Your task to perform on an android device: Go to Wikipedia Image 0: 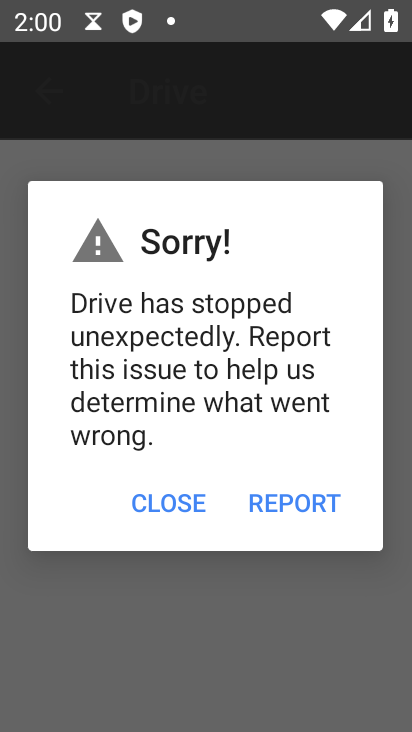
Step 0: press home button
Your task to perform on an android device: Go to Wikipedia Image 1: 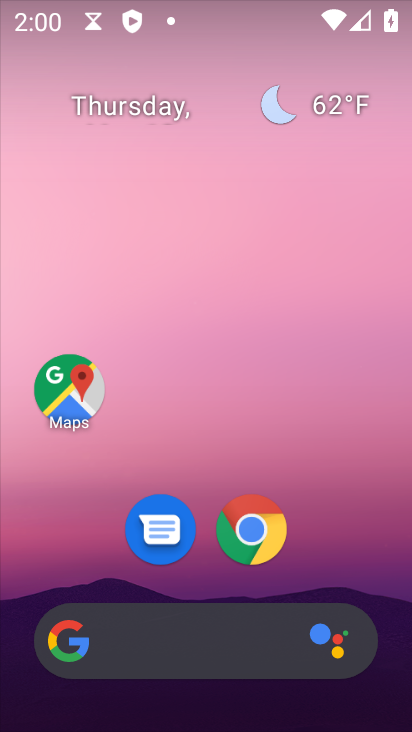
Step 1: click (250, 529)
Your task to perform on an android device: Go to Wikipedia Image 2: 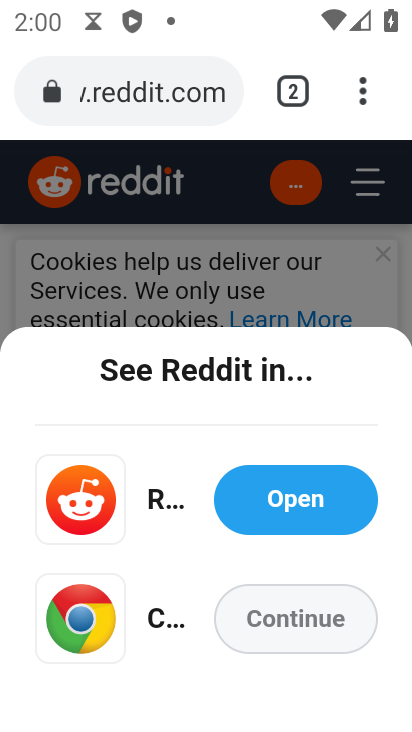
Step 2: click (195, 103)
Your task to perform on an android device: Go to Wikipedia Image 3: 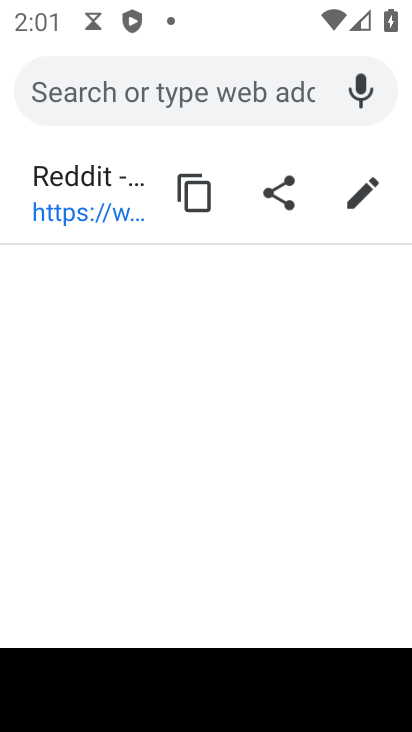
Step 3: type "Wikipedia"
Your task to perform on an android device: Go to Wikipedia Image 4: 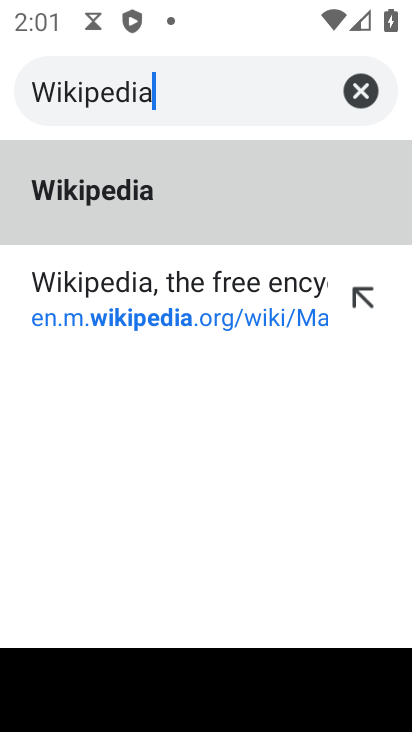
Step 4: type ""
Your task to perform on an android device: Go to Wikipedia Image 5: 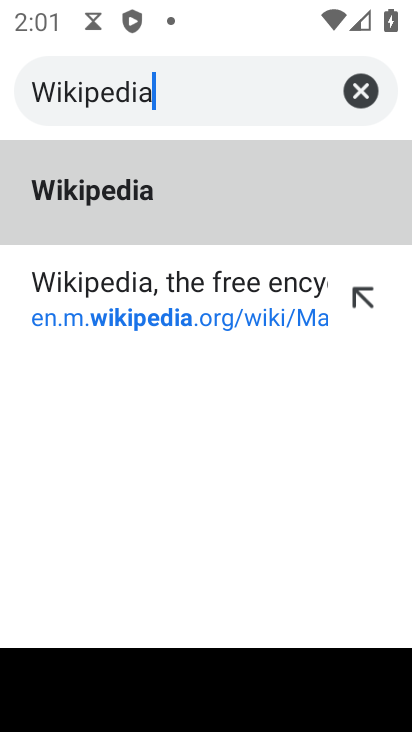
Step 5: click (129, 195)
Your task to perform on an android device: Go to Wikipedia Image 6: 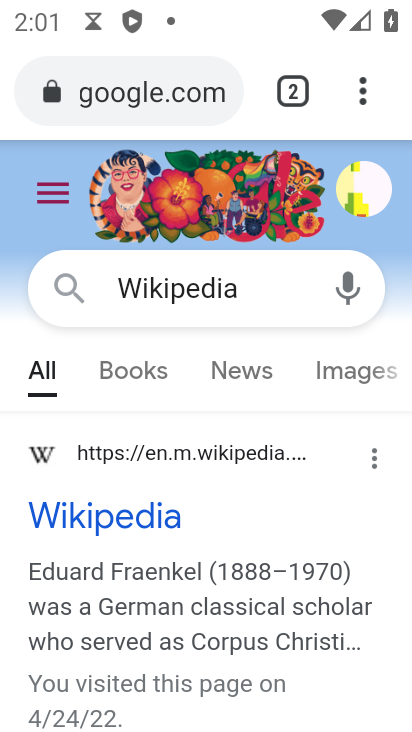
Step 6: click (99, 518)
Your task to perform on an android device: Go to Wikipedia Image 7: 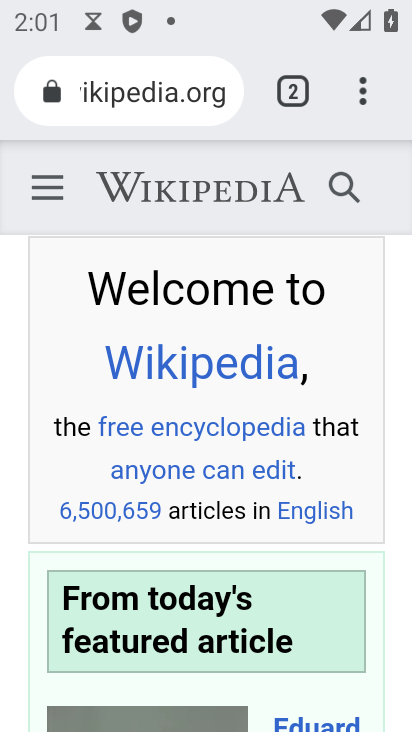
Step 7: task complete